Your task to perform on an android device: What's the news in India? Image 0: 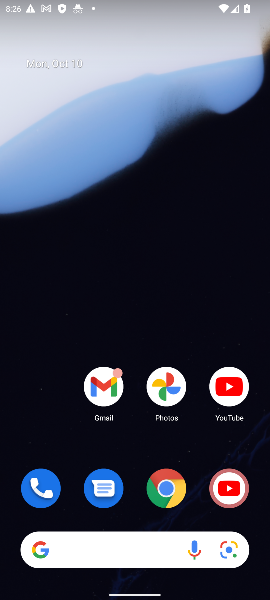
Step 0: click (163, 484)
Your task to perform on an android device: What's the news in India? Image 1: 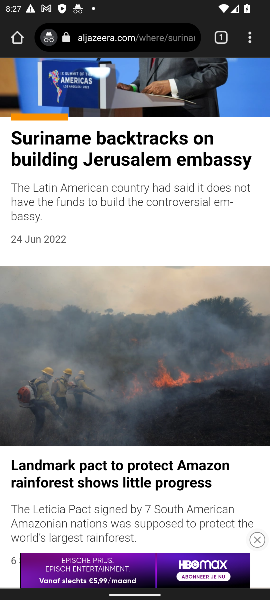
Step 1: click (129, 38)
Your task to perform on an android device: What's the news in India? Image 2: 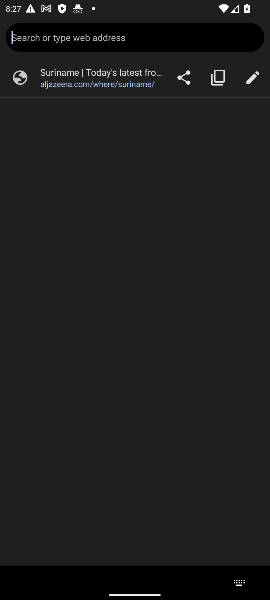
Step 2: type "What's the news in india?"
Your task to perform on an android device: What's the news in India? Image 3: 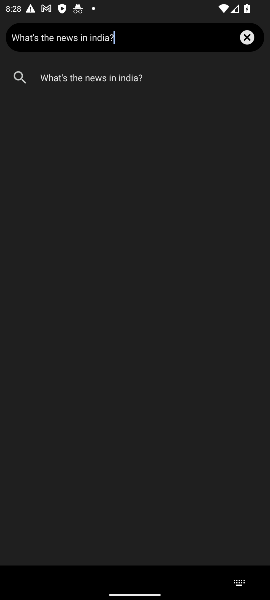
Step 3: press enter
Your task to perform on an android device: What's the news in India? Image 4: 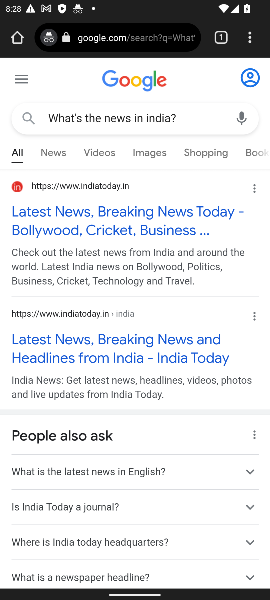
Step 4: click (64, 226)
Your task to perform on an android device: What's the news in India? Image 5: 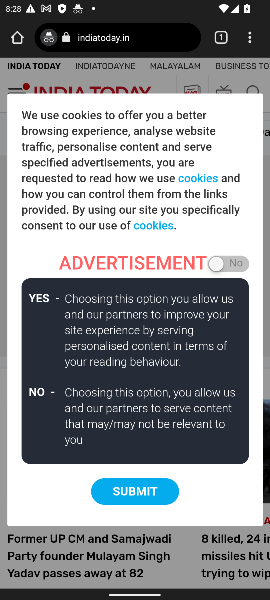
Step 5: task complete